Your task to perform on an android device: add a contact in the contacts app Image 0: 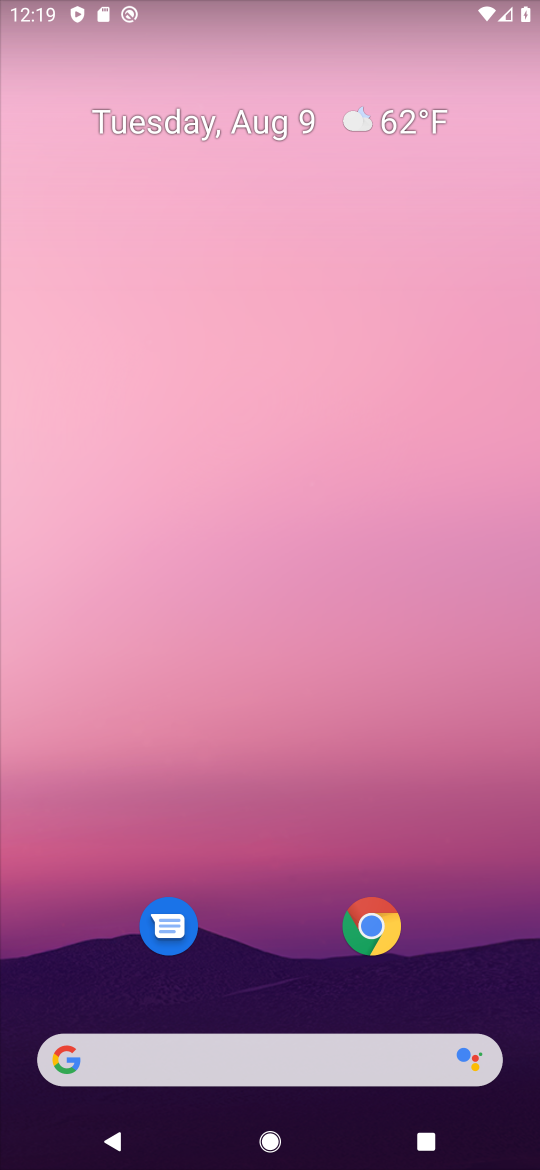
Step 0: drag from (70, 919) to (263, 308)
Your task to perform on an android device: add a contact in the contacts app Image 1: 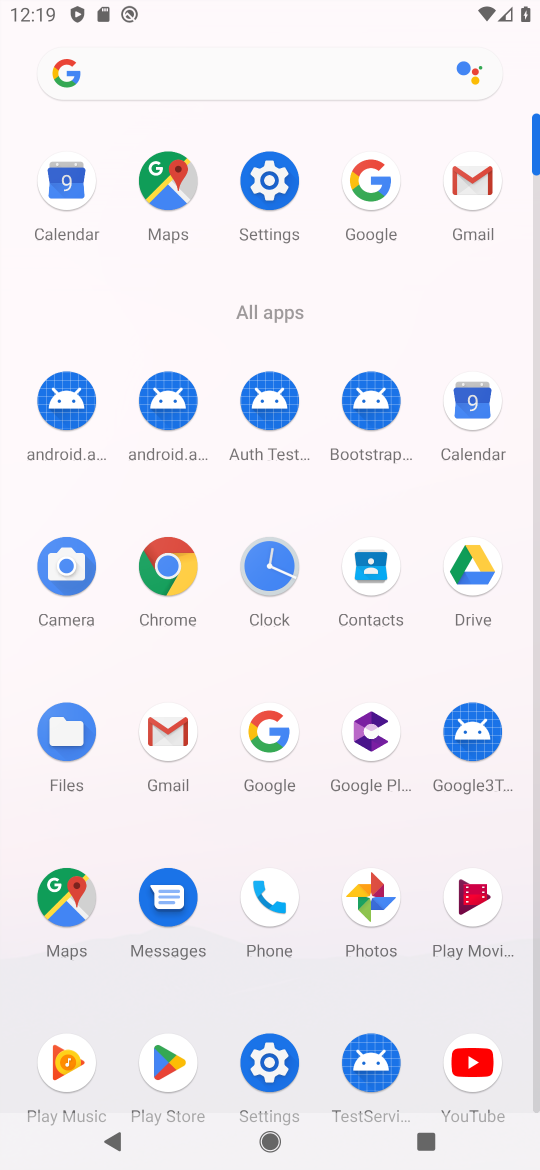
Step 1: click (251, 924)
Your task to perform on an android device: add a contact in the contacts app Image 2: 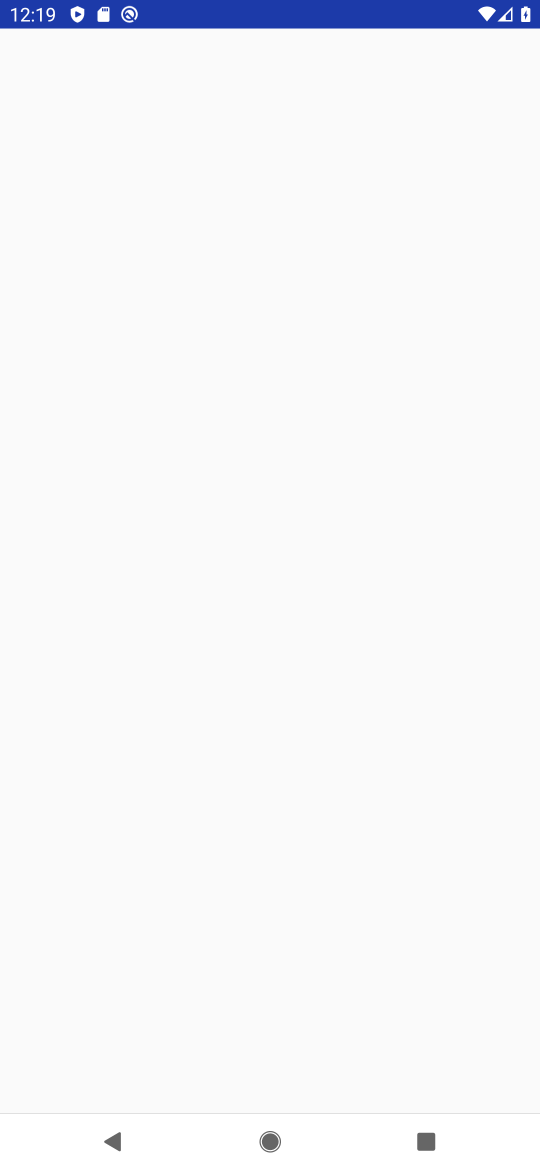
Step 2: click (519, 845)
Your task to perform on an android device: add a contact in the contacts app Image 3: 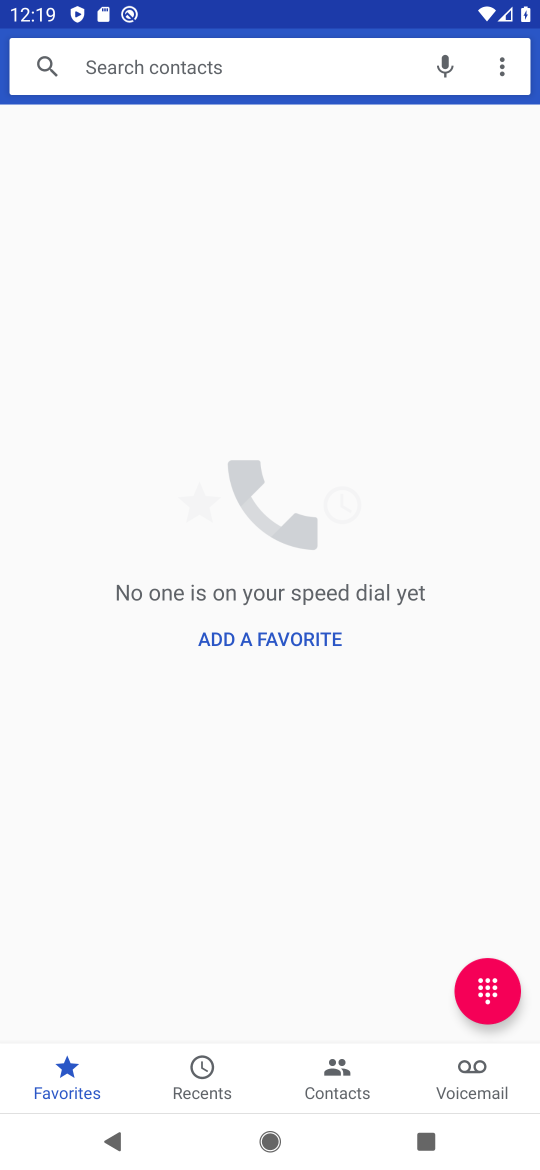
Step 3: click (148, 1137)
Your task to perform on an android device: add a contact in the contacts app Image 4: 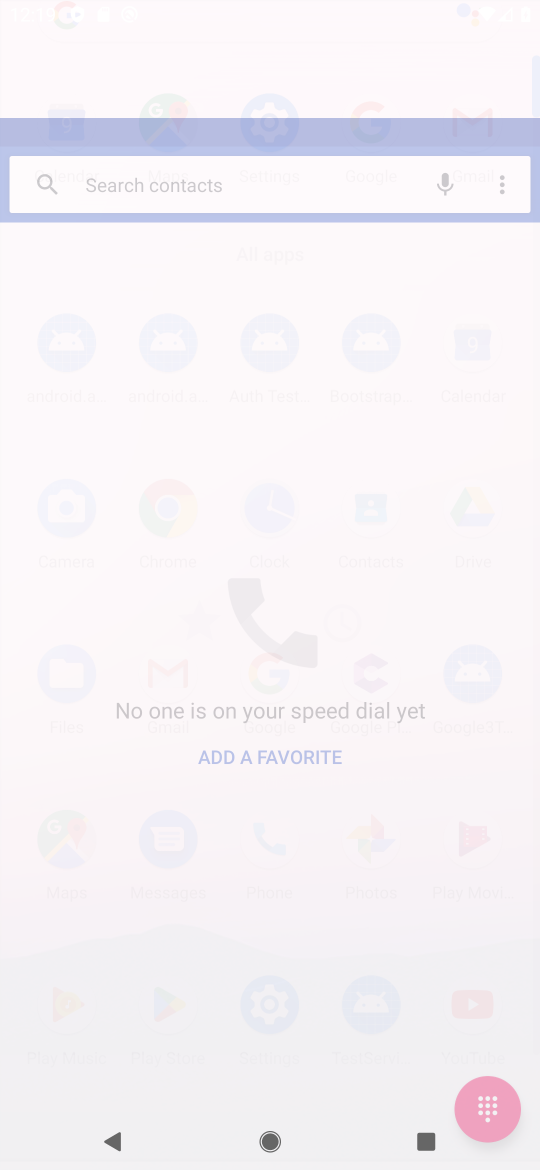
Step 4: click (321, 1074)
Your task to perform on an android device: add a contact in the contacts app Image 5: 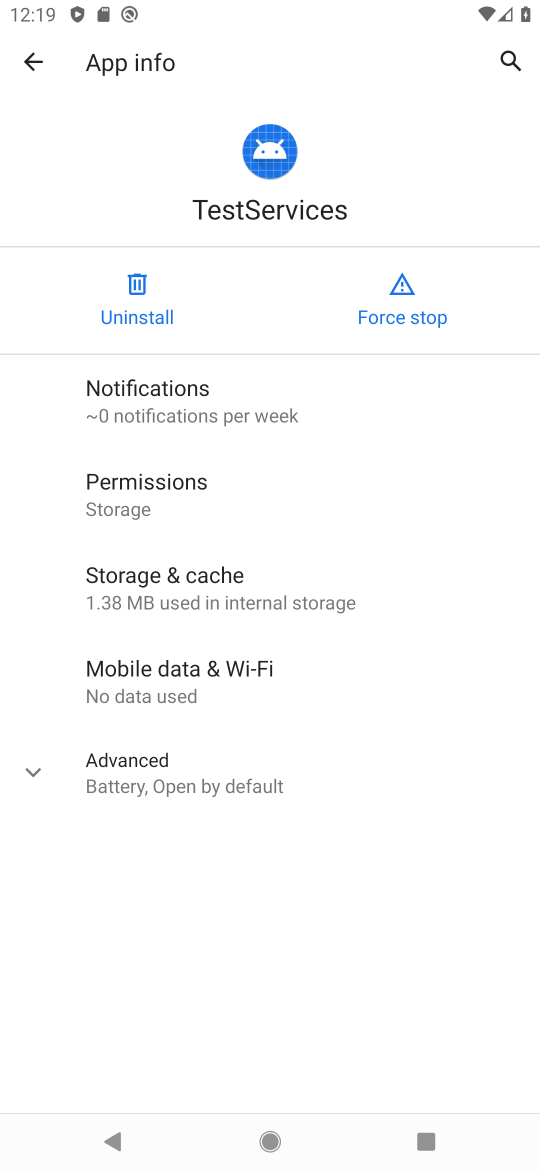
Step 5: press back button
Your task to perform on an android device: add a contact in the contacts app Image 6: 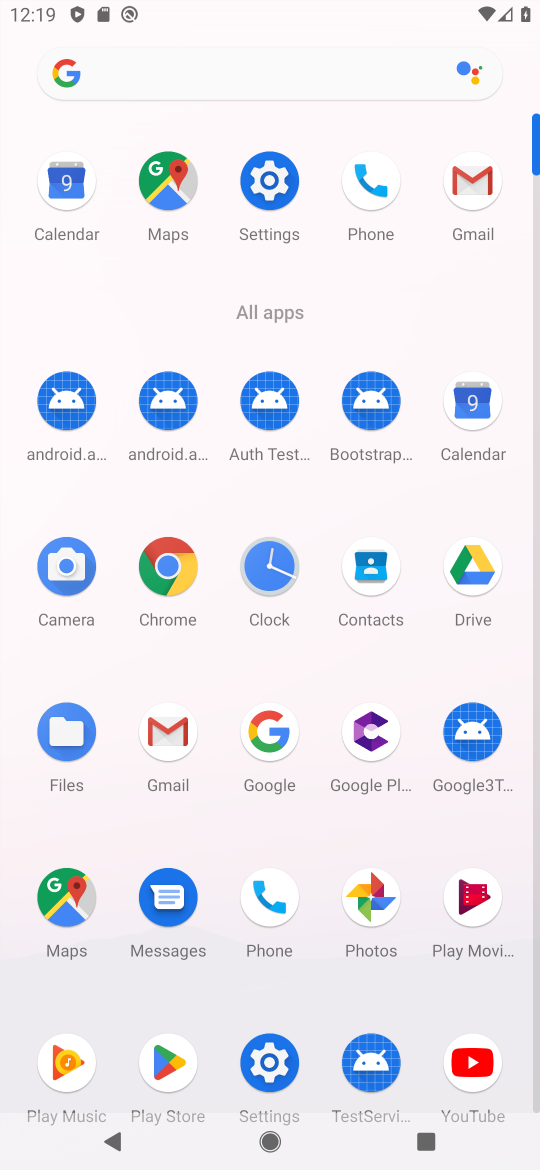
Step 6: click (262, 899)
Your task to perform on an android device: add a contact in the contacts app Image 7: 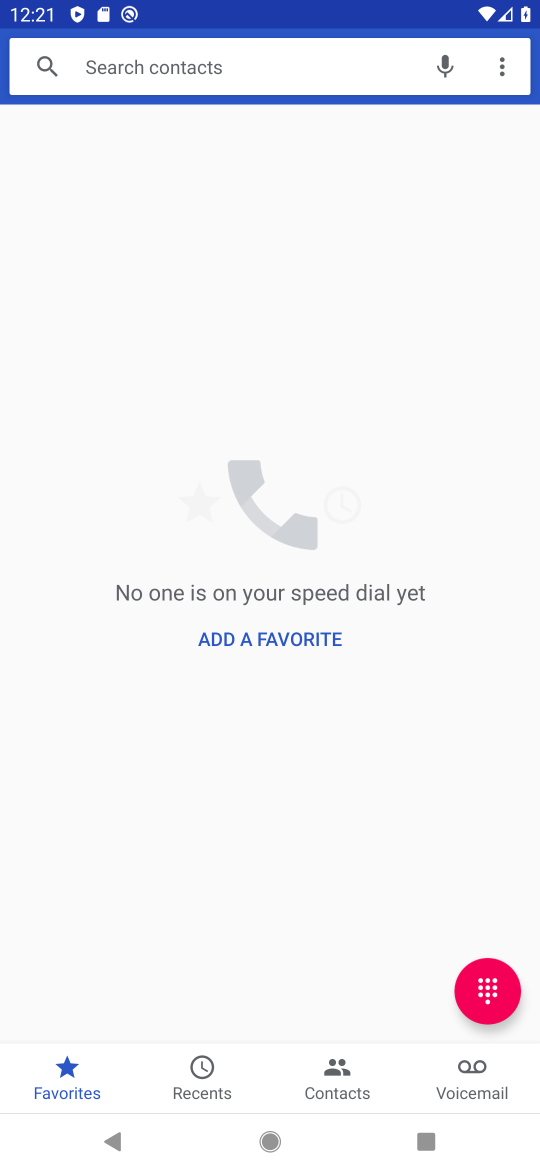
Step 7: click (333, 1078)
Your task to perform on an android device: add a contact in the contacts app Image 8: 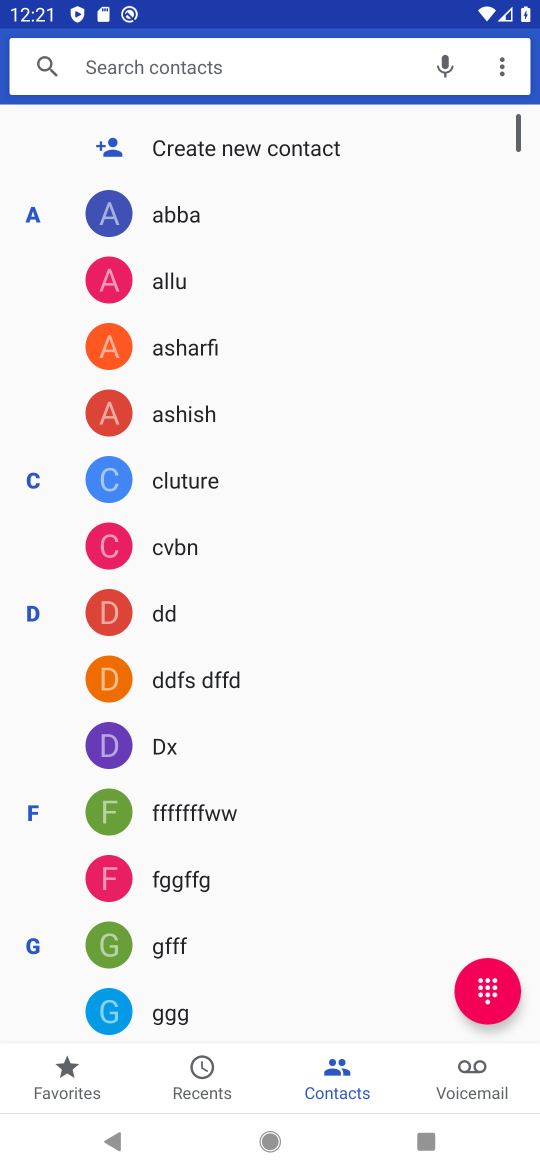
Step 8: click (171, 163)
Your task to perform on an android device: add a contact in the contacts app Image 9: 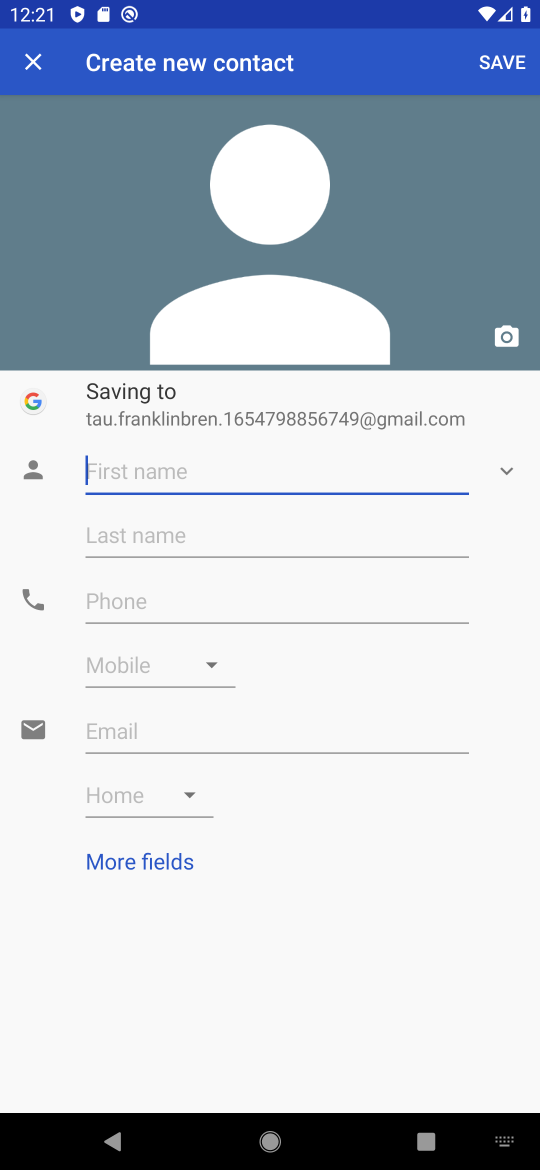
Step 9: click (198, 467)
Your task to perform on an android device: add a contact in the contacts app Image 10: 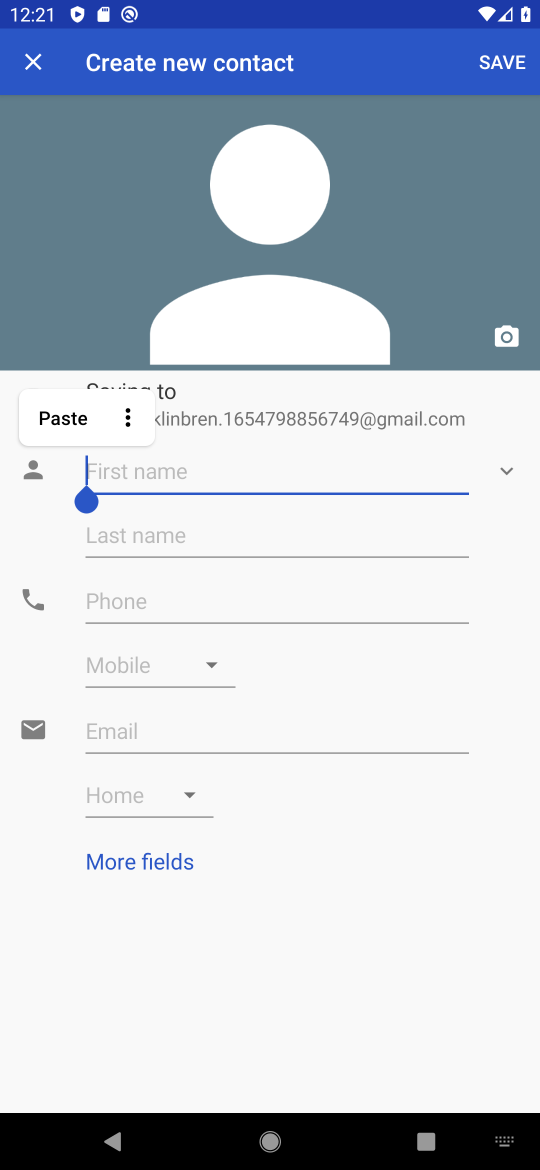
Step 10: type "cvfbg"
Your task to perform on an android device: add a contact in the contacts app Image 11: 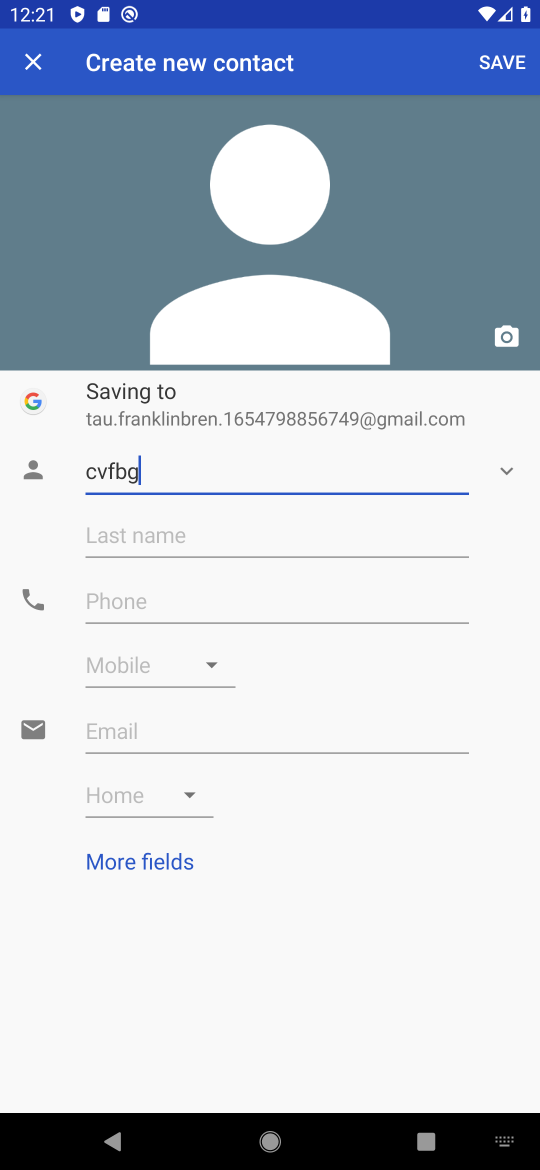
Step 11: type ""
Your task to perform on an android device: add a contact in the contacts app Image 12: 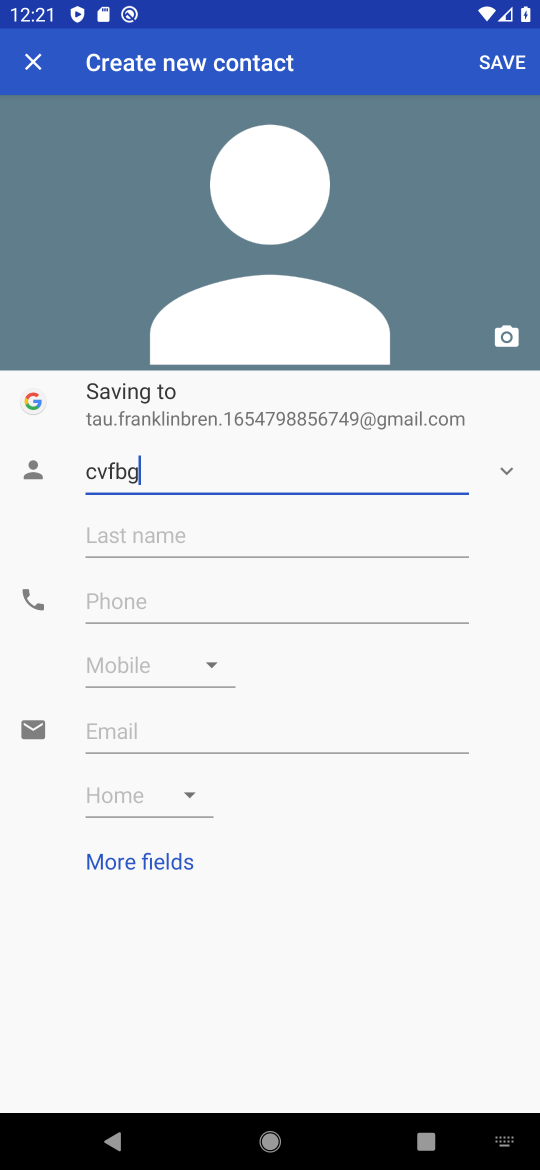
Step 12: click (499, 58)
Your task to perform on an android device: add a contact in the contacts app Image 13: 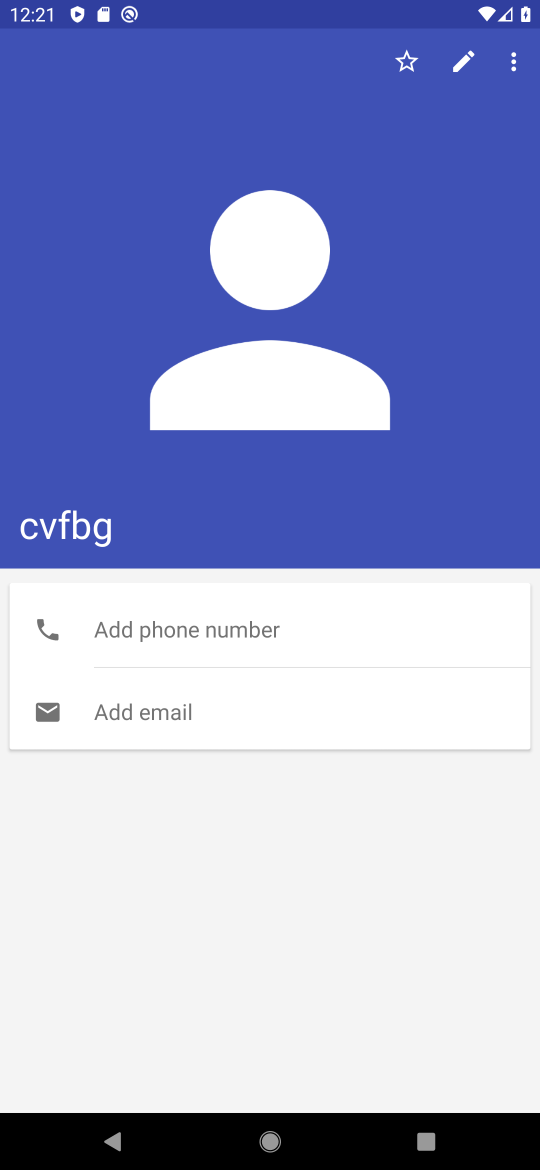
Step 13: task complete